Your task to perform on an android device: Go to sound settings Image 0: 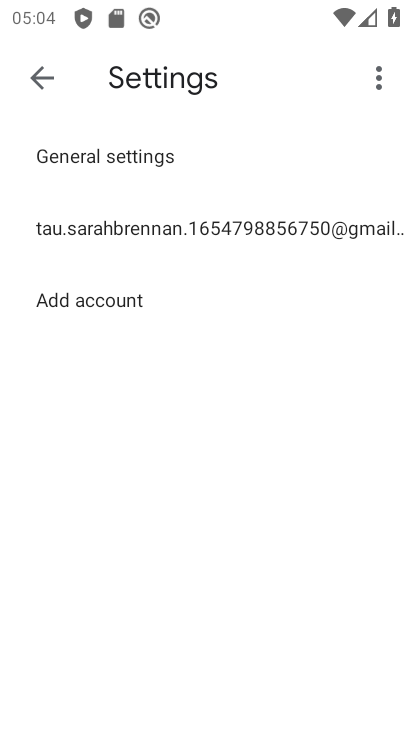
Step 0: press back button
Your task to perform on an android device: Go to sound settings Image 1: 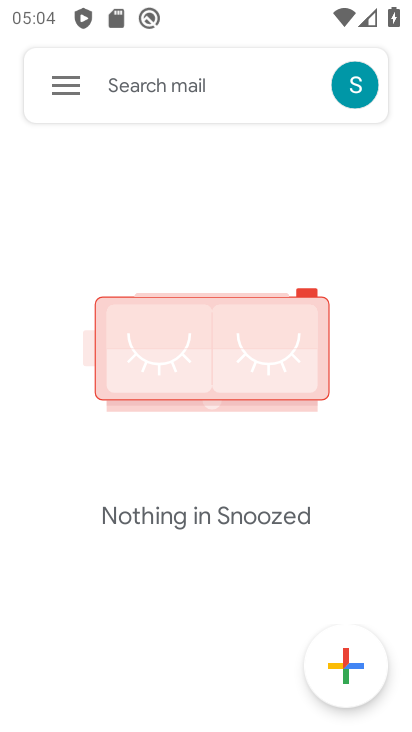
Step 1: press back button
Your task to perform on an android device: Go to sound settings Image 2: 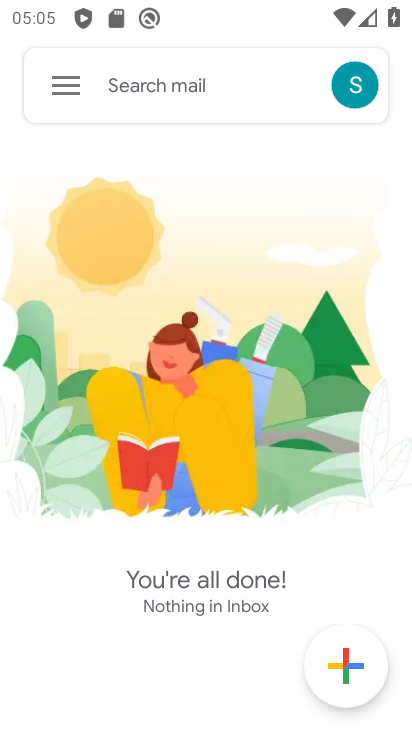
Step 2: press back button
Your task to perform on an android device: Go to sound settings Image 3: 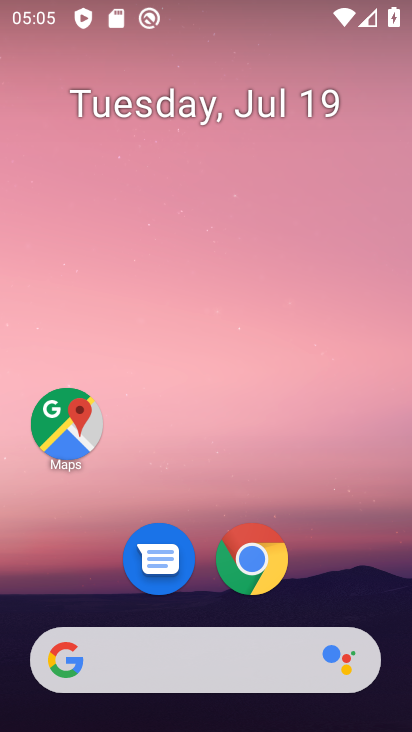
Step 3: drag from (149, 625) to (231, 17)
Your task to perform on an android device: Go to sound settings Image 4: 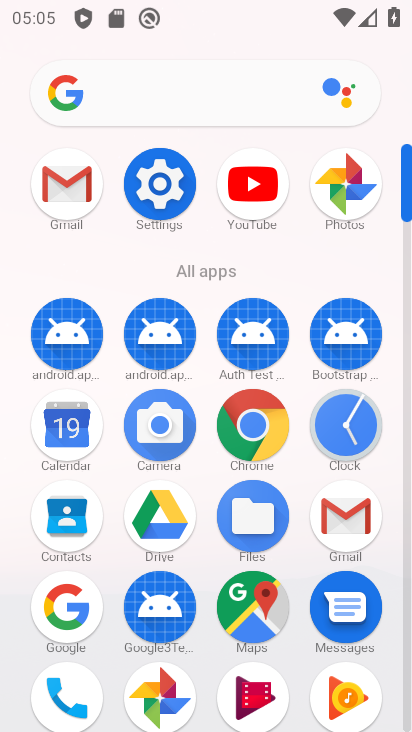
Step 4: click (147, 193)
Your task to perform on an android device: Go to sound settings Image 5: 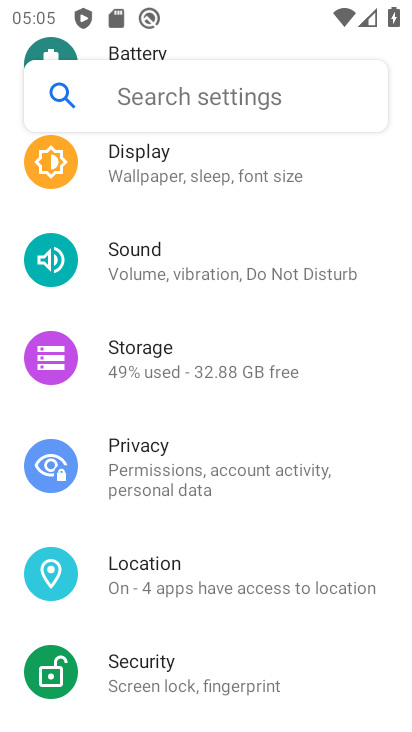
Step 5: click (176, 275)
Your task to perform on an android device: Go to sound settings Image 6: 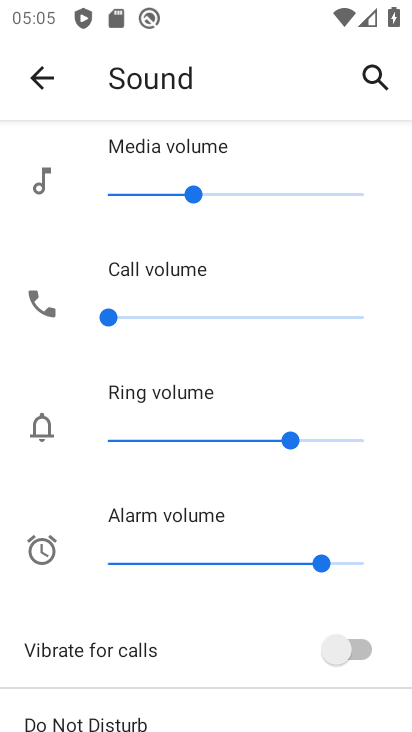
Step 6: task complete